Your task to perform on an android device: allow cookies in the chrome app Image 0: 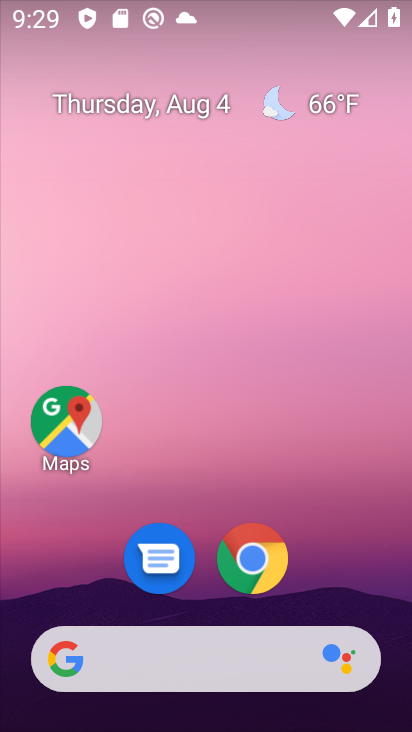
Step 0: drag from (381, 589) to (281, 122)
Your task to perform on an android device: allow cookies in the chrome app Image 1: 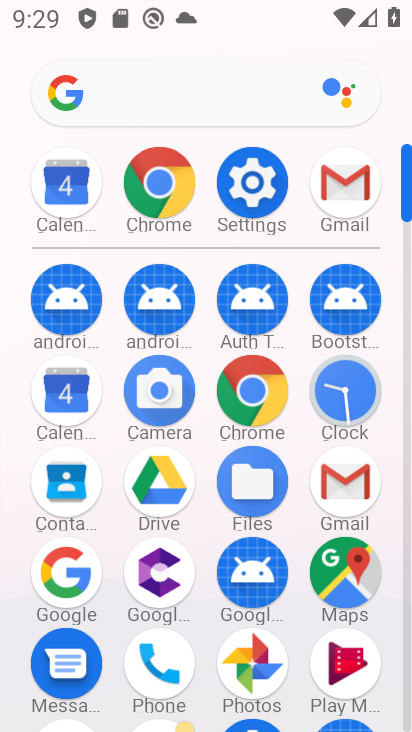
Step 1: click (254, 390)
Your task to perform on an android device: allow cookies in the chrome app Image 2: 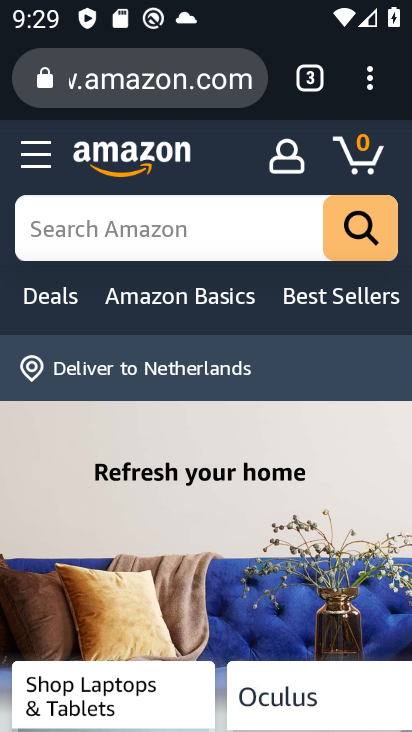
Step 2: drag from (375, 78) to (114, 629)
Your task to perform on an android device: allow cookies in the chrome app Image 3: 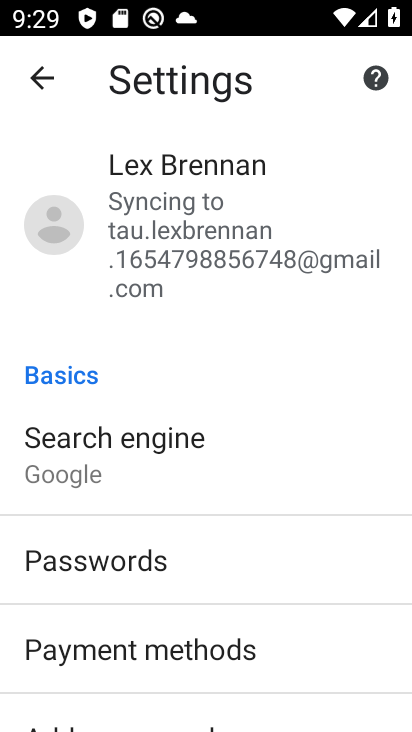
Step 3: drag from (272, 606) to (307, 205)
Your task to perform on an android device: allow cookies in the chrome app Image 4: 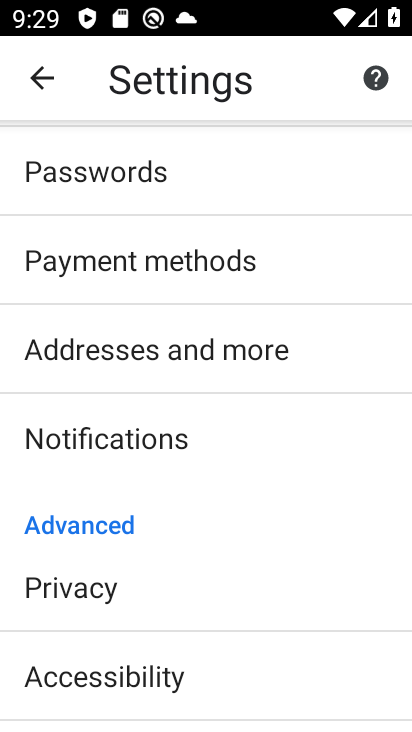
Step 4: drag from (195, 590) to (207, 273)
Your task to perform on an android device: allow cookies in the chrome app Image 5: 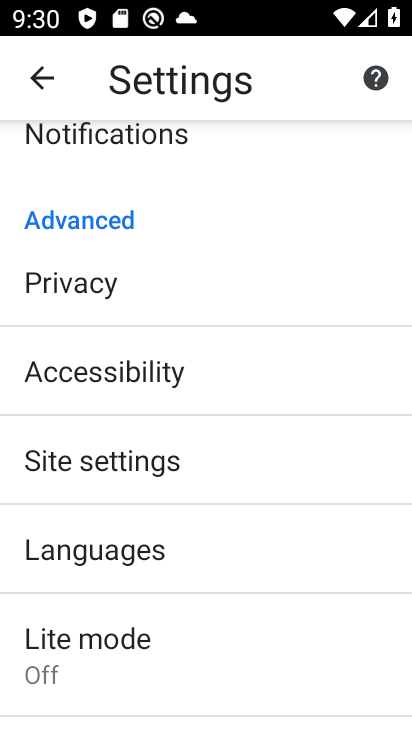
Step 5: click (126, 460)
Your task to perform on an android device: allow cookies in the chrome app Image 6: 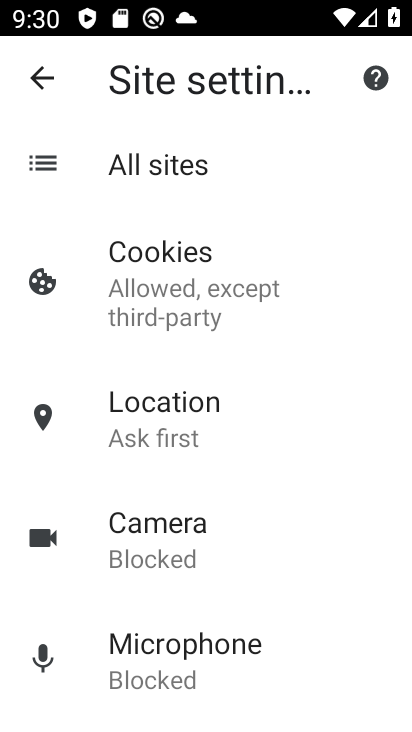
Step 6: click (188, 270)
Your task to perform on an android device: allow cookies in the chrome app Image 7: 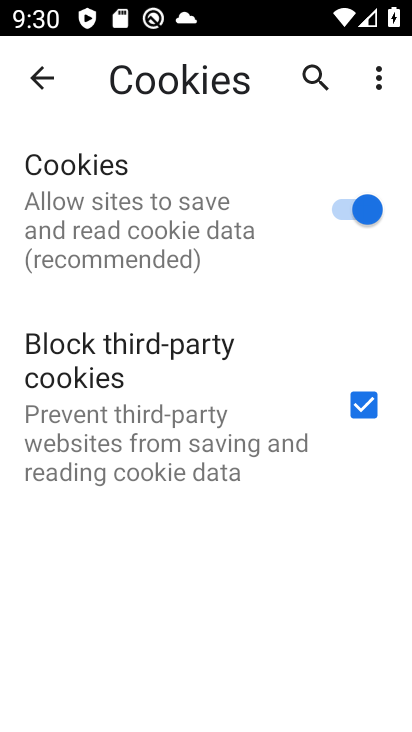
Step 7: task complete